Your task to perform on an android device: Go to calendar. Show me events next week Image 0: 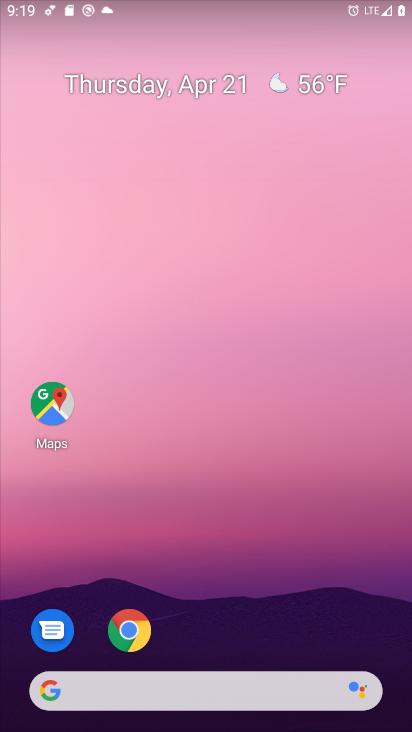
Step 0: drag from (228, 639) to (321, 236)
Your task to perform on an android device: Go to calendar. Show me events next week Image 1: 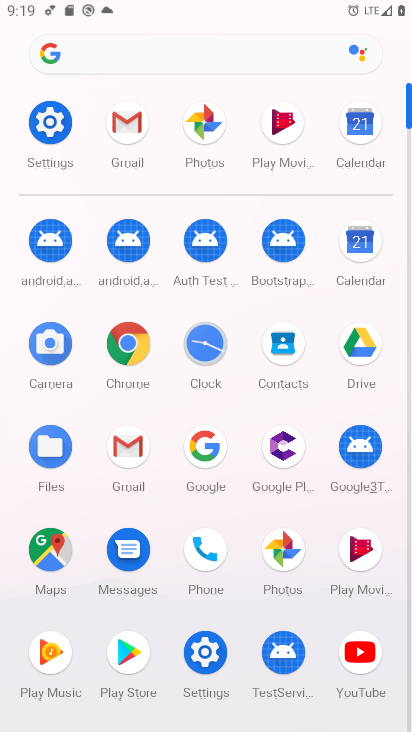
Step 1: click (358, 260)
Your task to perform on an android device: Go to calendar. Show me events next week Image 2: 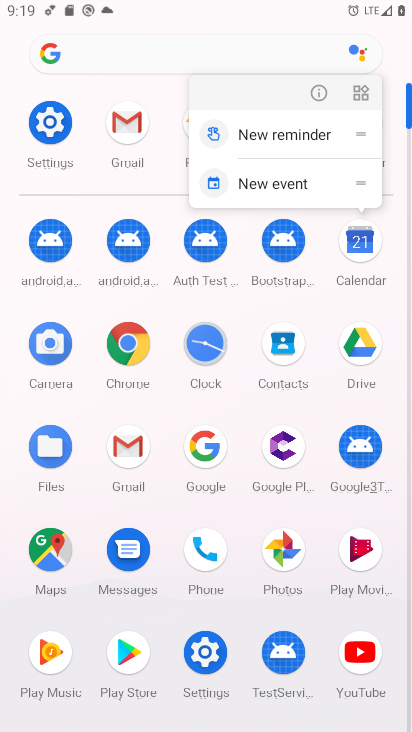
Step 2: click (358, 262)
Your task to perform on an android device: Go to calendar. Show me events next week Image 3: 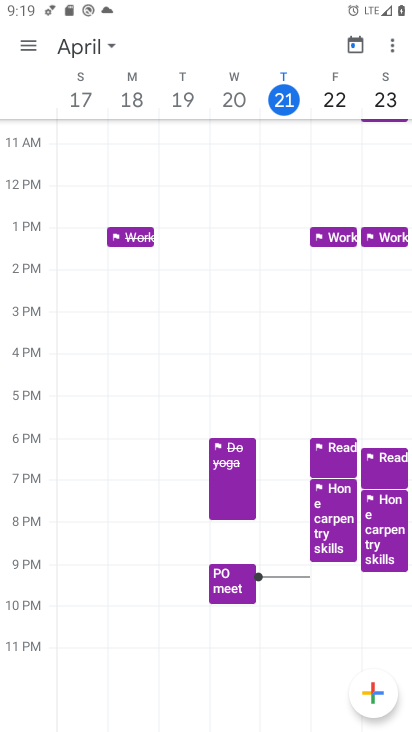
Step 3: task complete